Your task to perform on an android device: Go to Google Image 0: 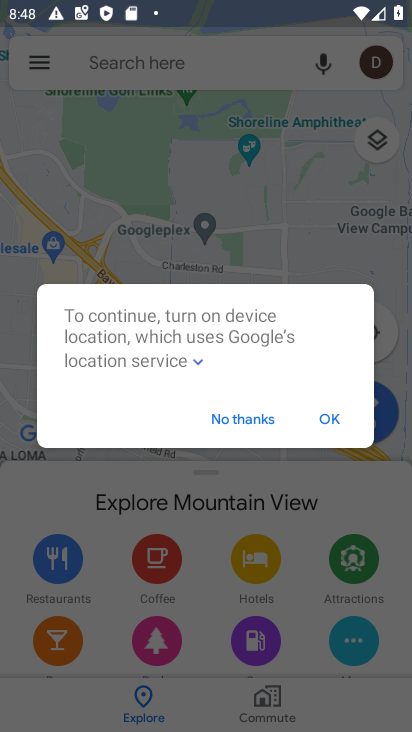
Step 0: press home button
Your task to perform on an android device: Go to Google Image 1: 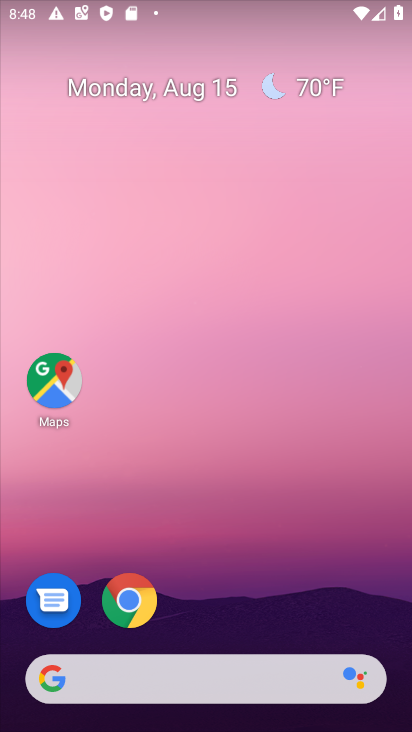
Step 1: drag from (241, 647) to (238, 277)
Your task to perform on an android device: Go to Google Image 2: 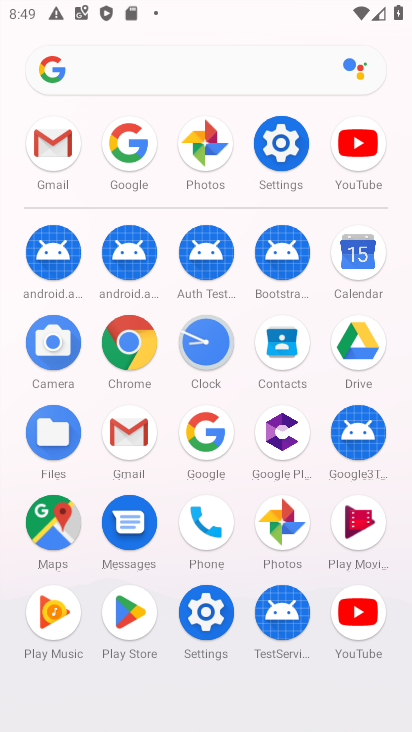
Step 2: click (202, 425)
Your task to perform on an android device: Go to Google Image 3: 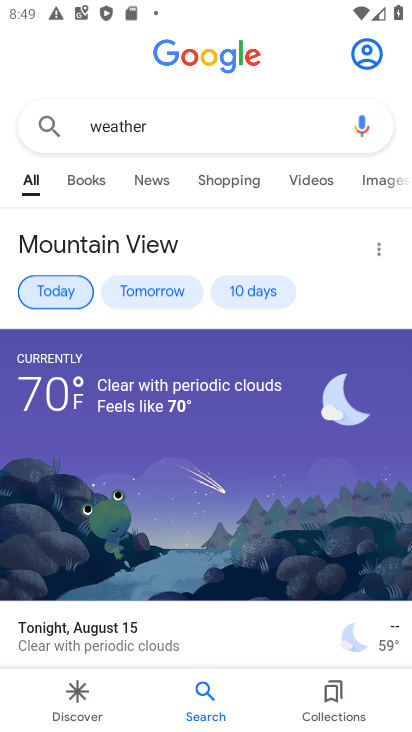
Step 3: task complete